Your task to perform on an android device: turn off javascript in the chrome app Image 0: 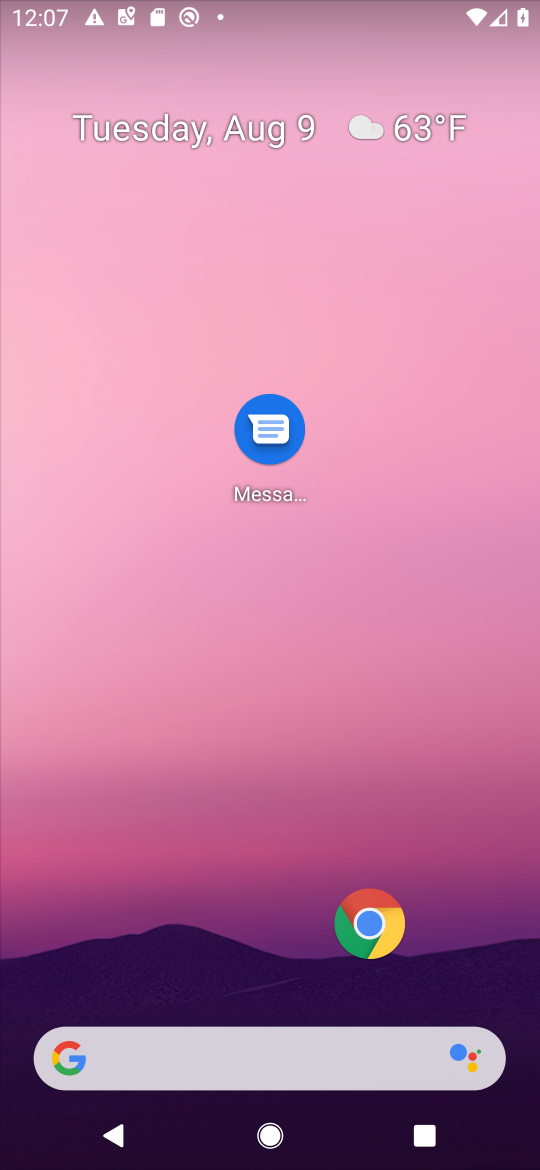
Step 0: click (364, 921)
Your task to perform on an android device: turn off javascript in the chrome app Image 1: 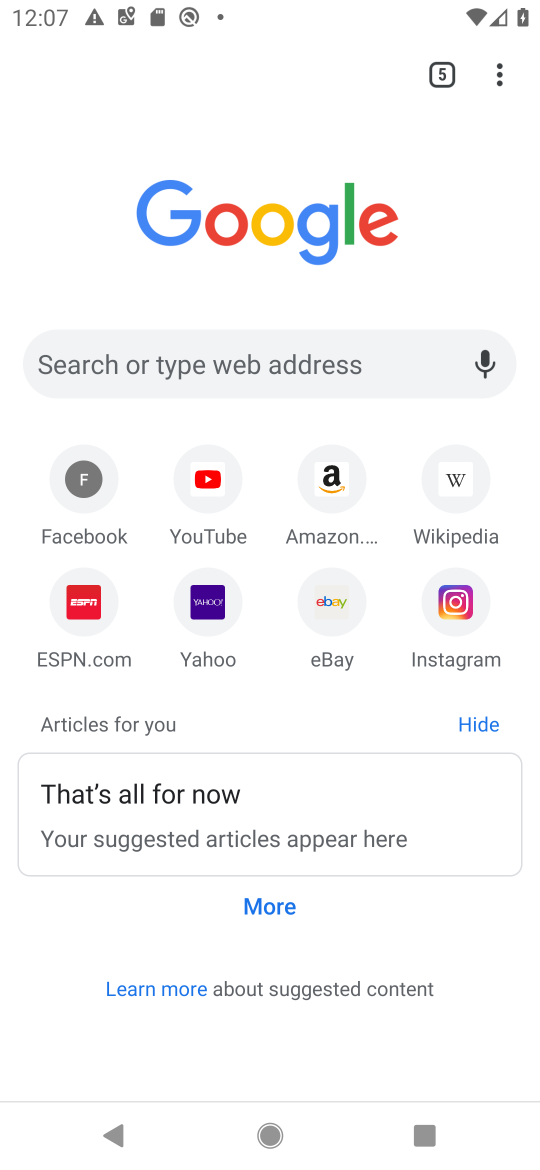
Step 1: click (506, 67)
Your task to perform on an android device: turn off javascript in the chrome app Image 2: 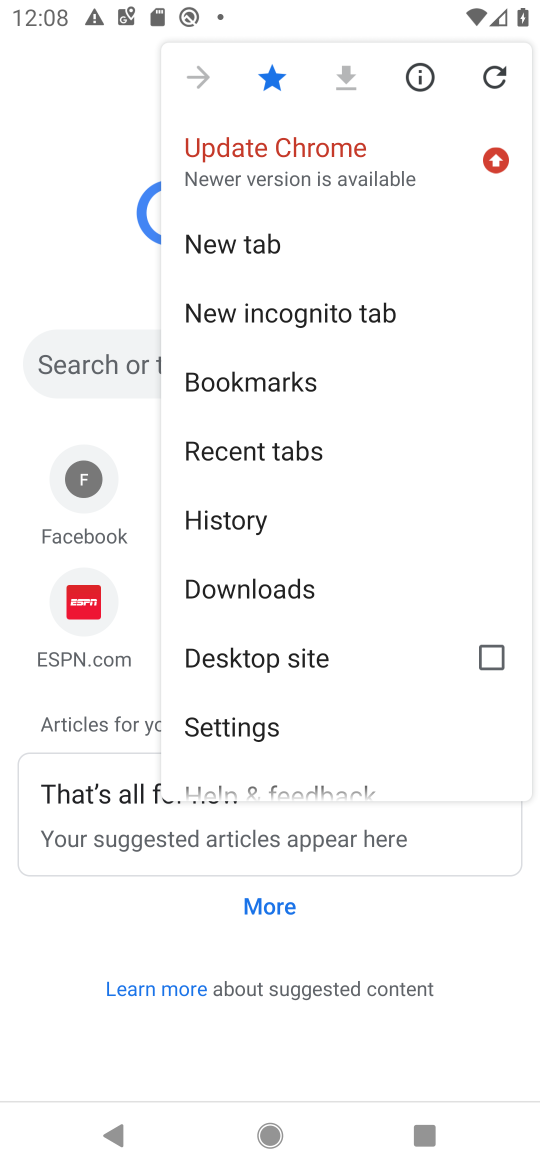
Step 2: click (216, 708)
Your task to perform on an android device: turn off javascript in the chrome app Image 3: 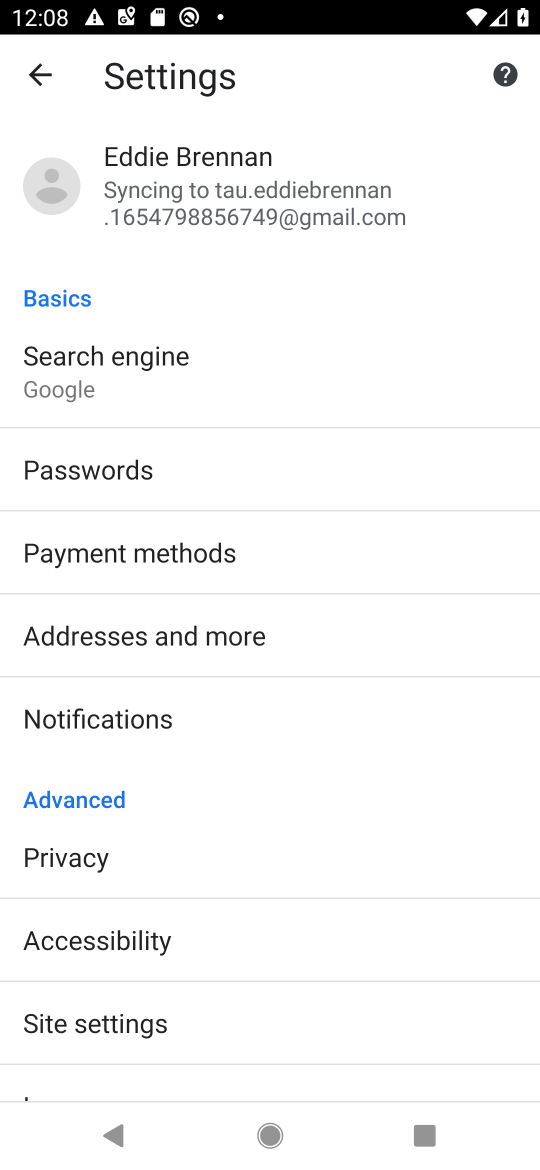
Step 3: click (138, 1017)
Your task to perform on an android device: turn off javascript in the chrome app Image 4: 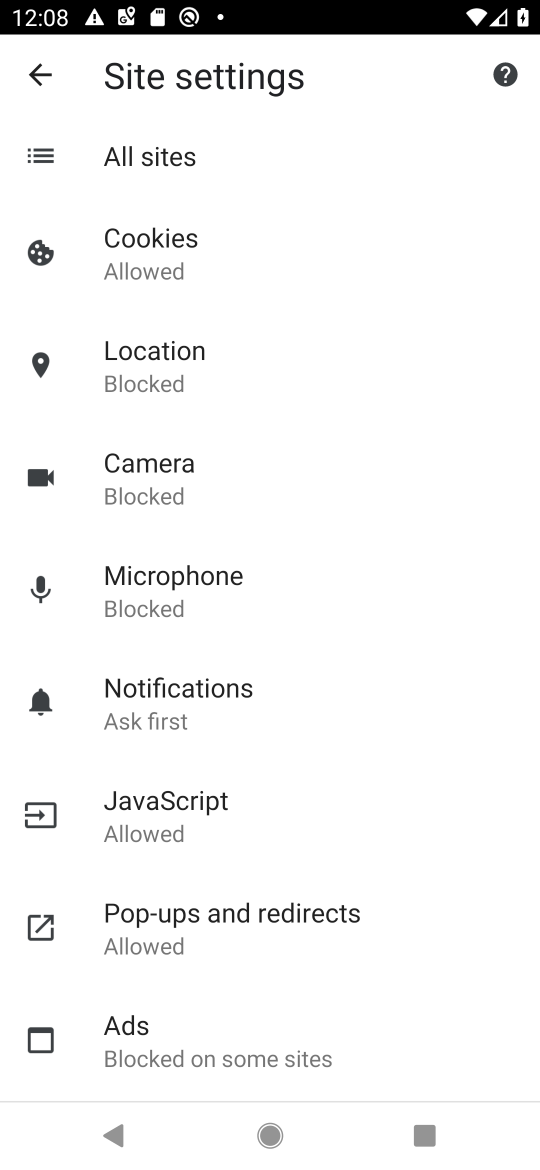
Step 4: click (159, 823)
Your task to perform on an android device: turn off javascript in the chrome app Image 5: 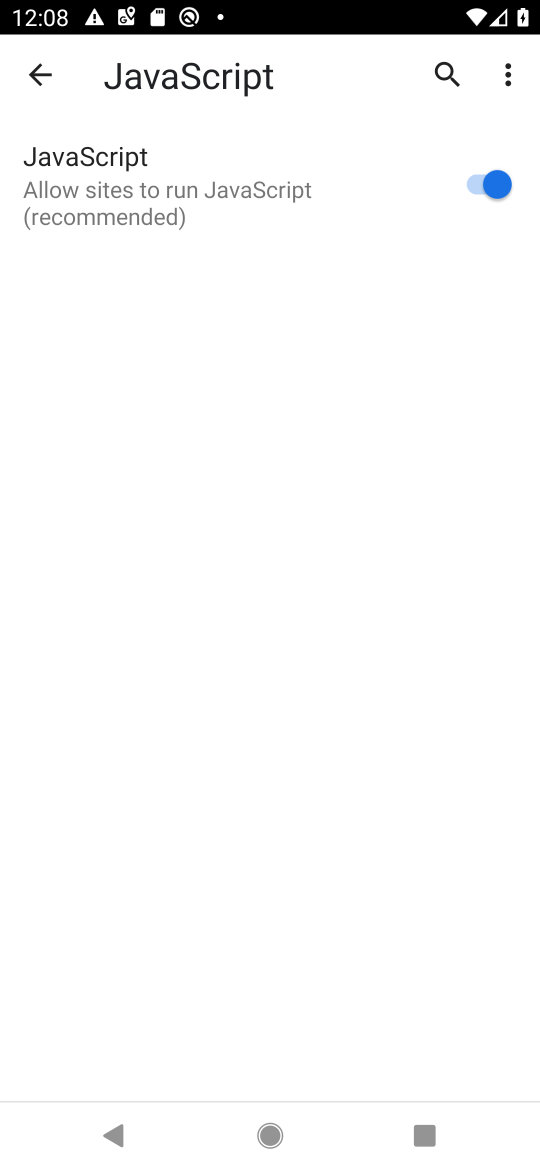
Step 5: task complete